Your task to perform on an android device: Go to CNN.com Image 0: 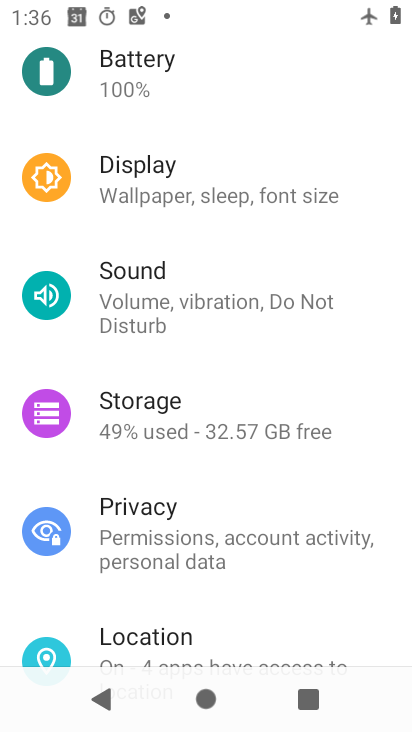
Step 0: press home button
Your task to perform on an android device: Go to CNN.com Image 1: 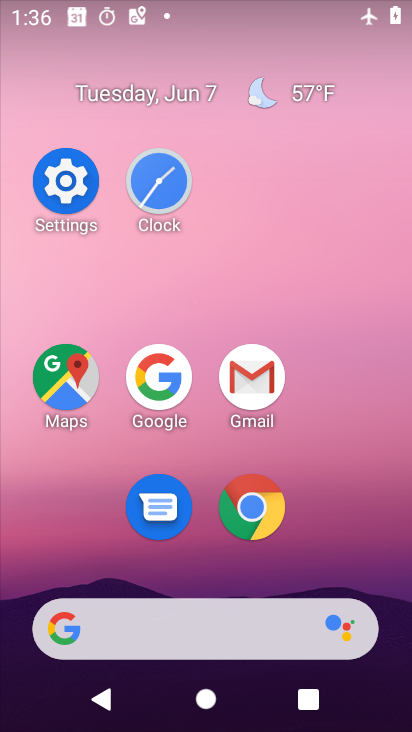
Step 1: click (156, 373)
Your task to perform on an android device: Go to CNN.com Image 2: 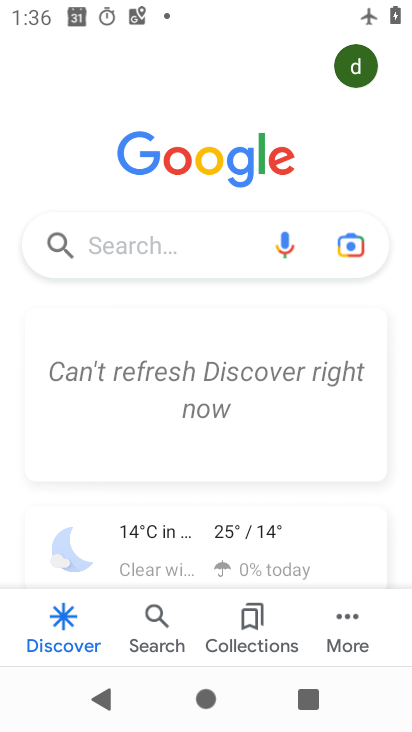
Step 2: click (213, 259)
Your task to perform on an android device: Go to CNN.com Image 3: 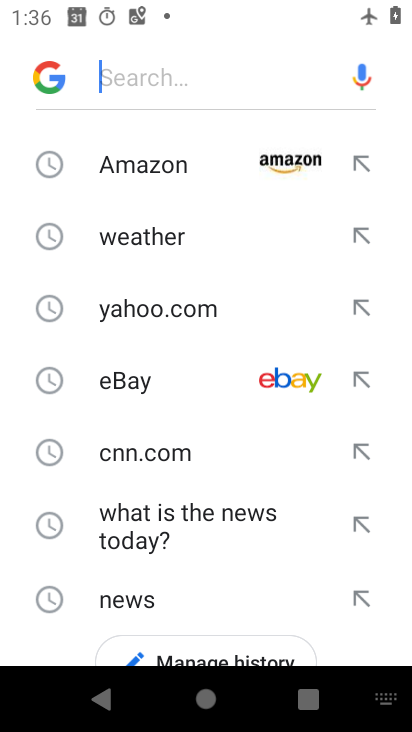
Step 3: click (164, 464)
Your task to perform on an android device: Go to CNN.com Image 4: 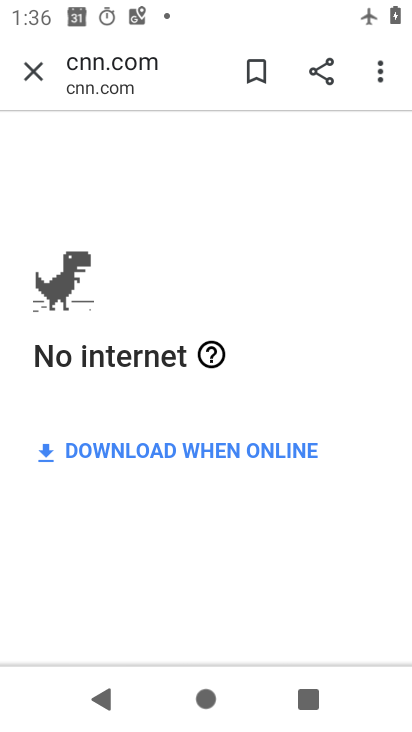
Step 4: task complete